Your task to perform on an android device: Open network settings Image 0: 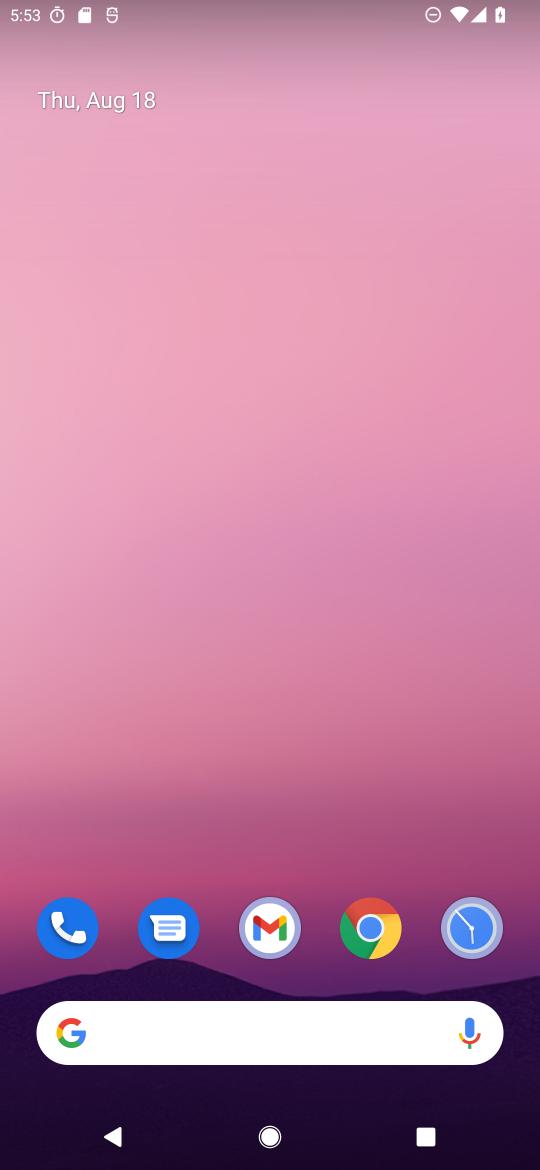
Step 0: drag from (321, 867) to (351, 89)
Your task to perform on an android device: Open network settings Image 1: 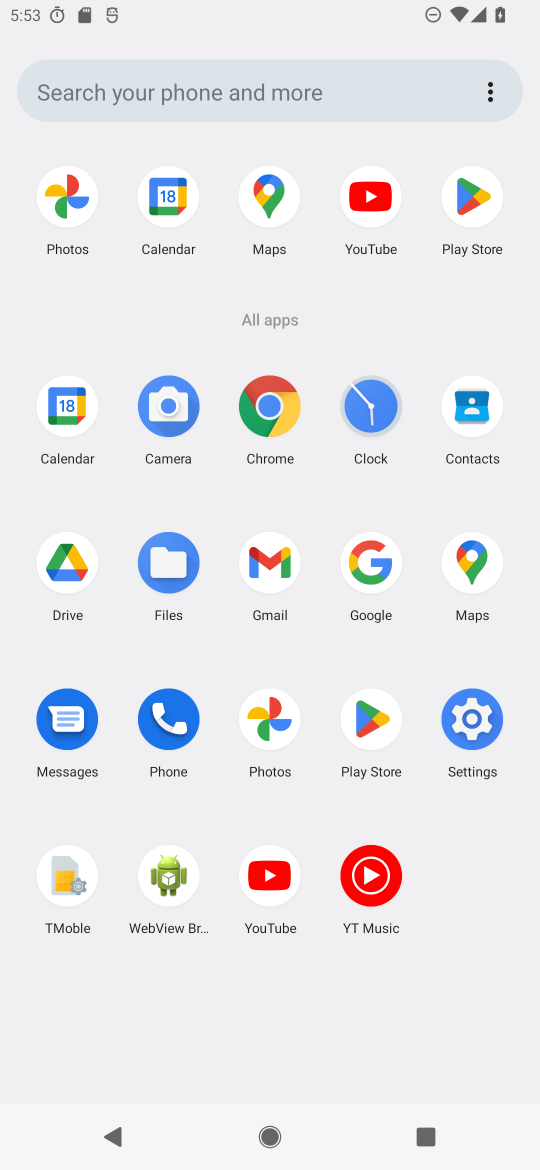
Step 1: click (464, 714)
Your task to perform on an android device: Open network settings Image 2: 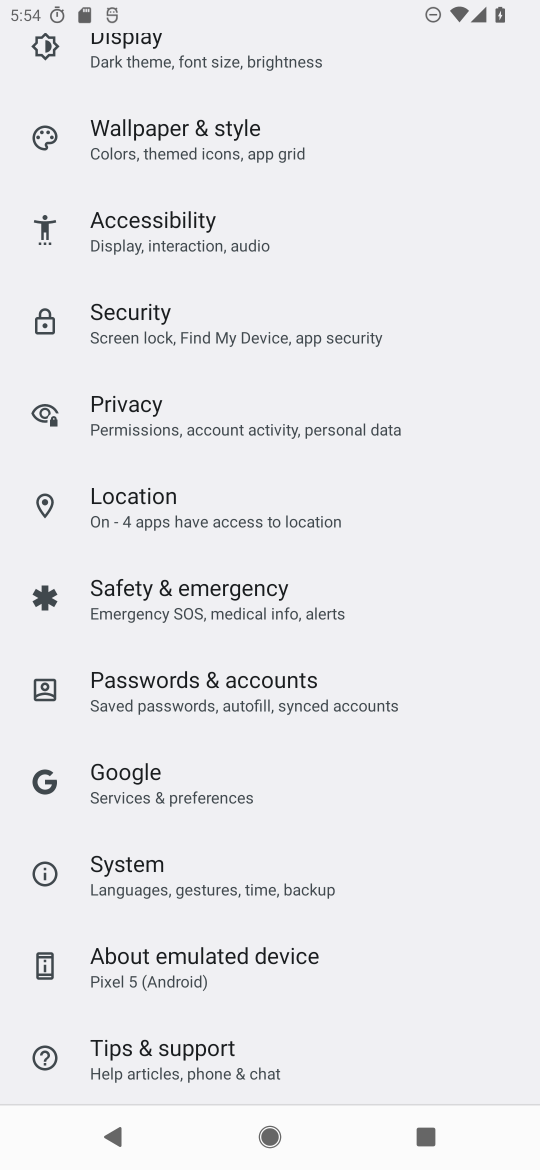
Step 2: drag from (228, 188) to (250, 1008)
Your task to perform on an android device: Open network settings Image 3: 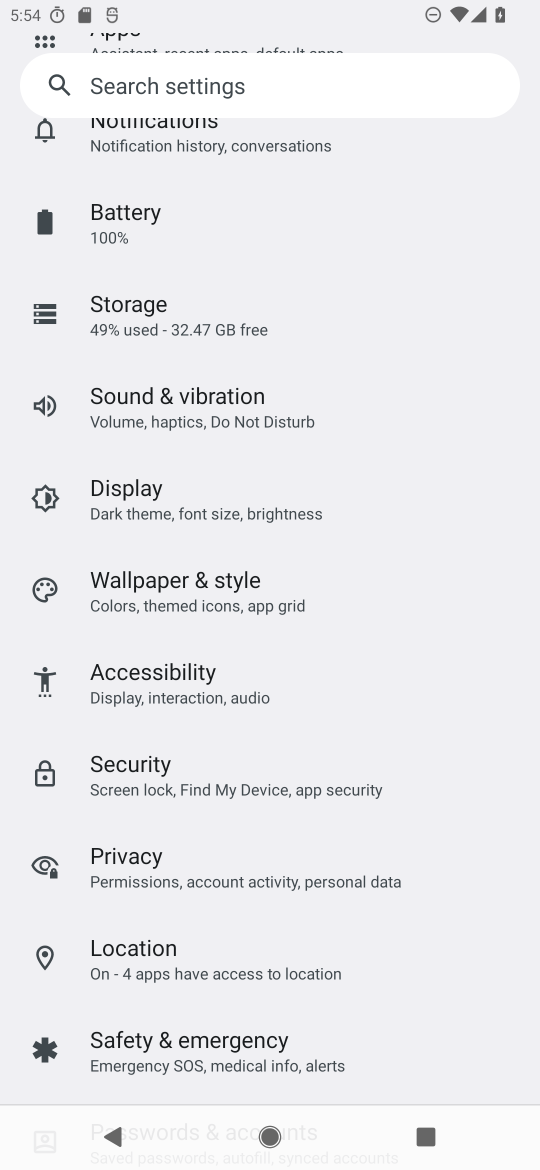
Step 3: drag from (355, 261) to (328, 1082)
Your task to perform on an android device: Open network settings Image 4: 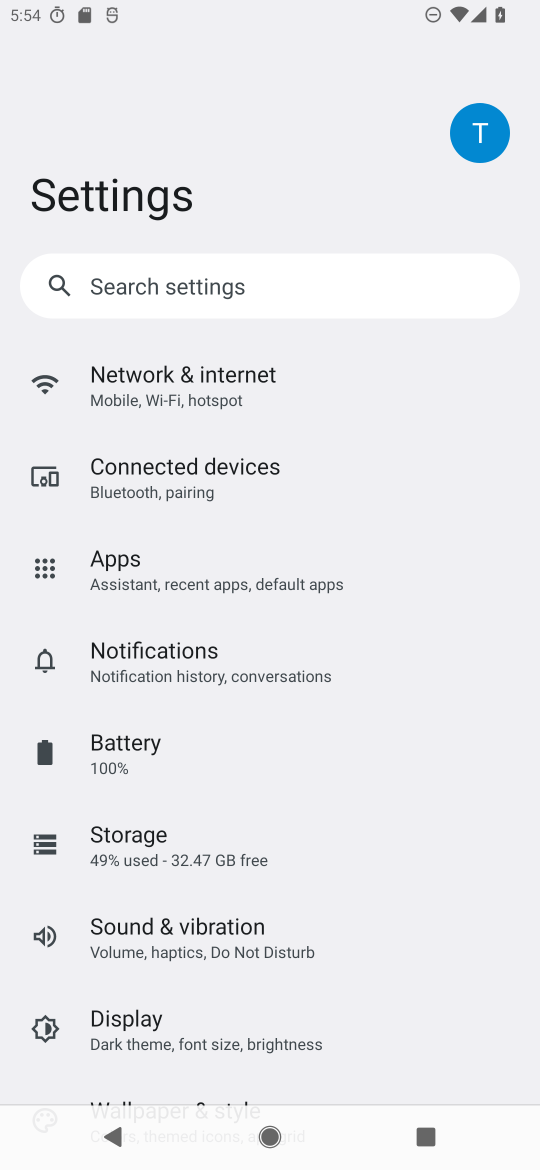
Step 4: click (224, 375)
Your task to perform on an android device: Open network settings Image 5: 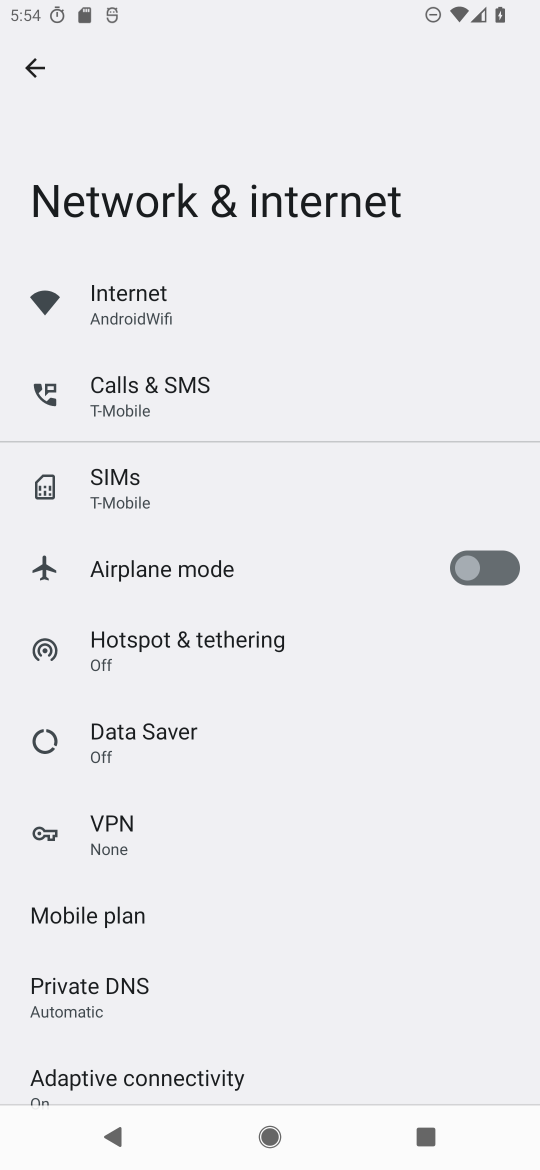
Step 5: task complete